Your task to perform on an android device: turn off location history Image 0: 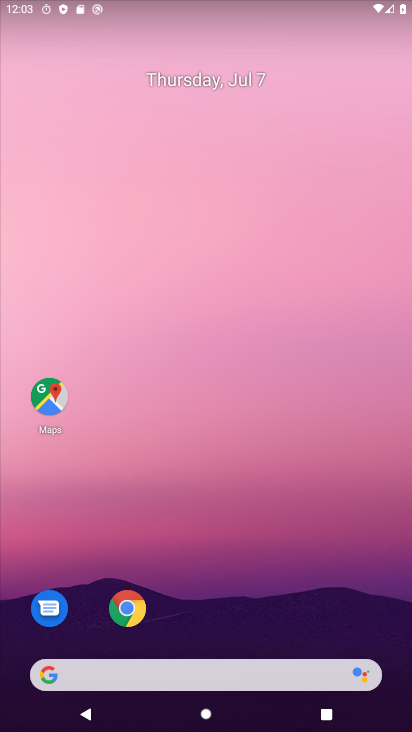
Step 0: drag from (240, 684) to (263, 158)
Your task to perform on an android device: turn off location history Image 1: 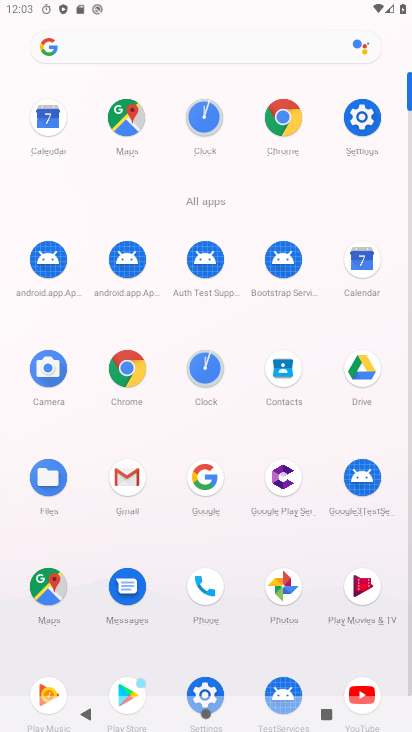
Step 1: click (382, 112)
Your task to perform on an android device: turn off location history Image 2: 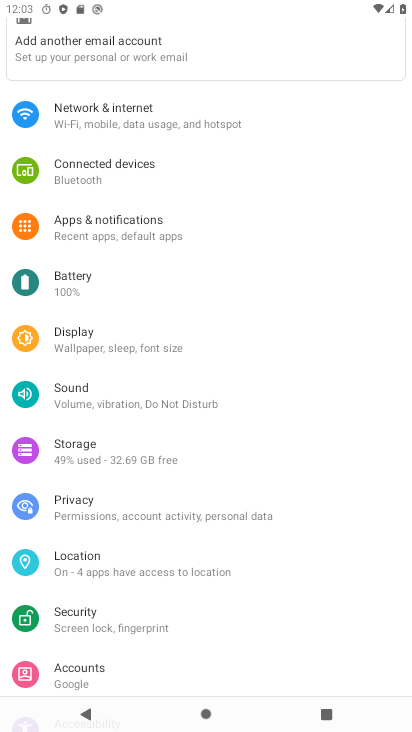
Step 2: click (179, 567)
Your task to perform on an android device: turn off location history Image 3: 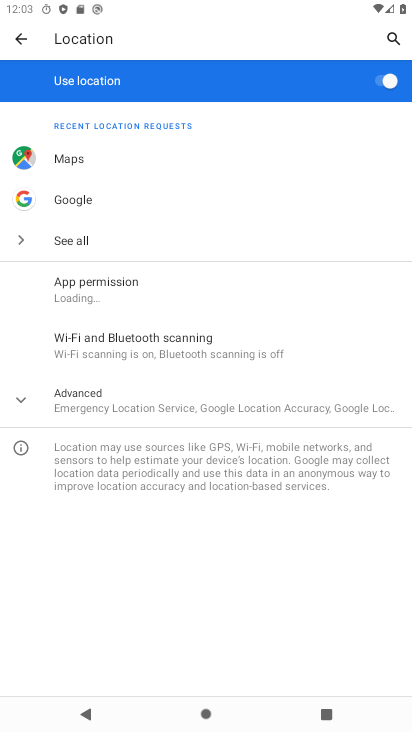
Step 3: click (172, 403)
Your task to perform on an android device: turn off location history Image 4: 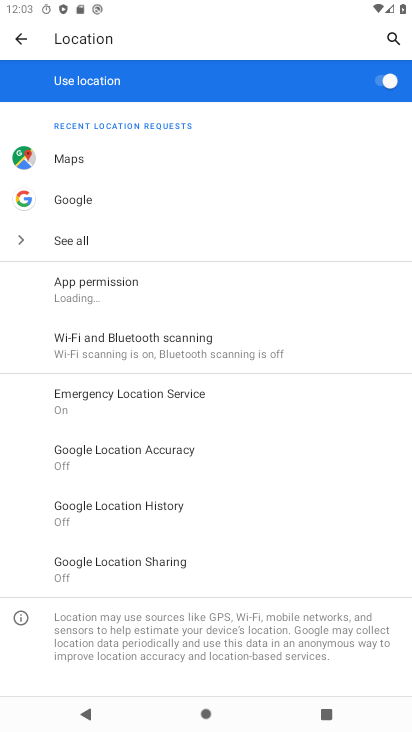
Step 4: click (167, 505)
Your task to perform on an android device: turn off location history Image 5: 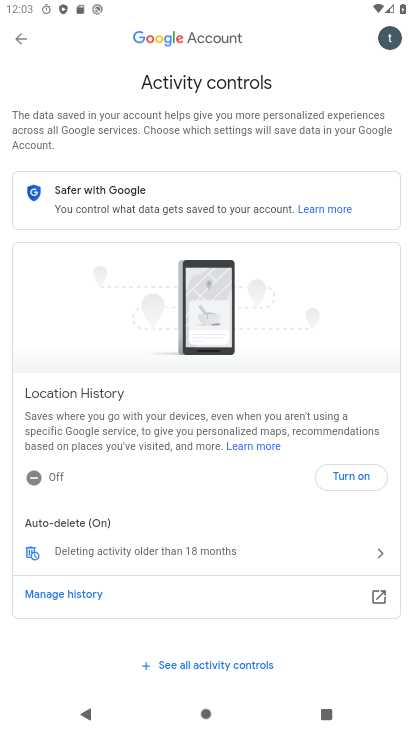
Step 5: task complete